Your task to perform on an android device: Go to settings Image 0: 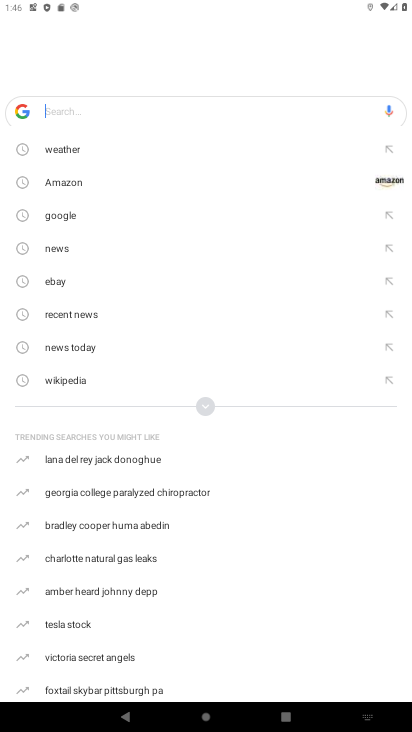
Step 0: press home button
Your task to perform on an android device: Go to settings Image 1: 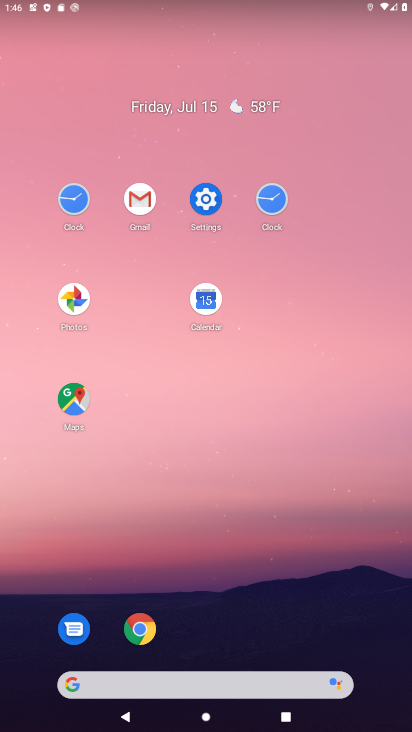
Step 1: click (206, 199)
Your task to perform on an android device: Go to settings Image 2: 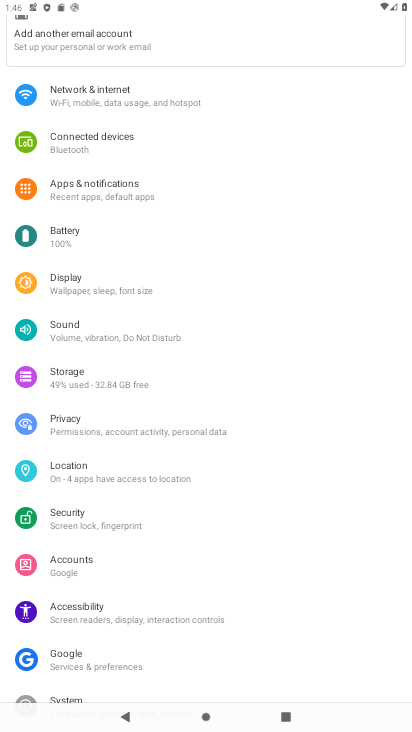
Step 2: task complete